Your task to perform on an android device: toggle translation in the chrome app Image 0: 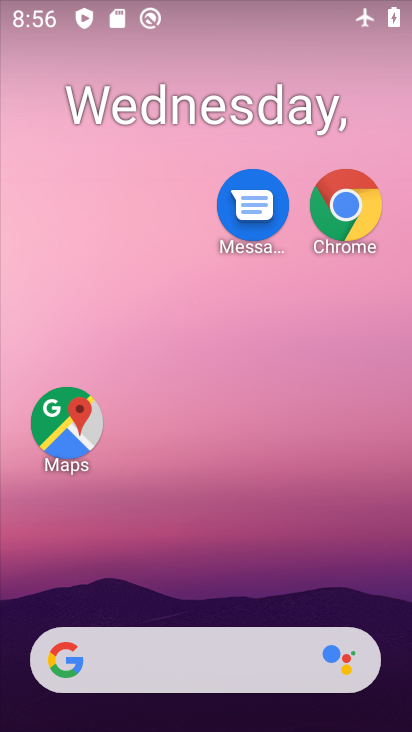
Step 0: drag from (232, 606) to (228, 148)
Your task to perform on an android device: toggle translation in the chrome app Image 1: 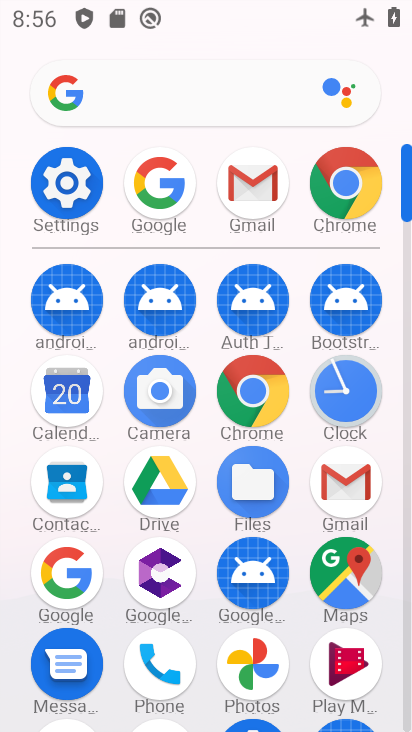
Step 1: click (251, 375)
Your task to perform on an android device: toggle translation in the chrome app Image 2: 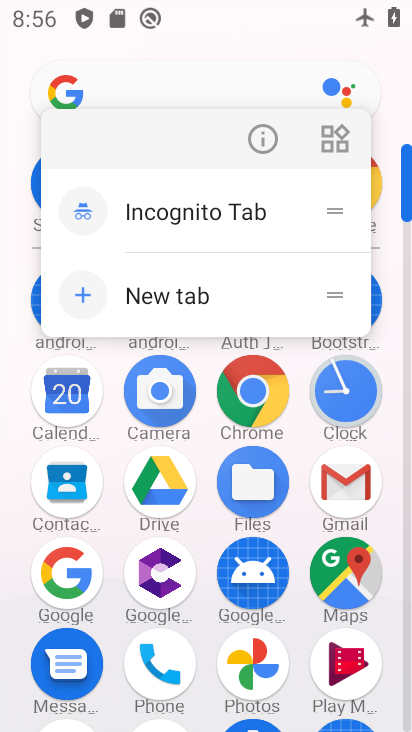
Step 2: click (256, 123)
Your task to perform on an android device: toggle translation in the chrome app Image 3: 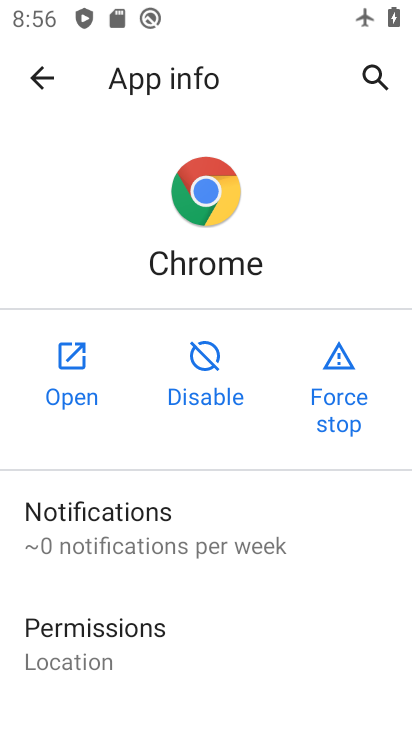
Step 3: click (74, 370)
Your task to perform on an android device: toggle translation in the chrome app Image 4: 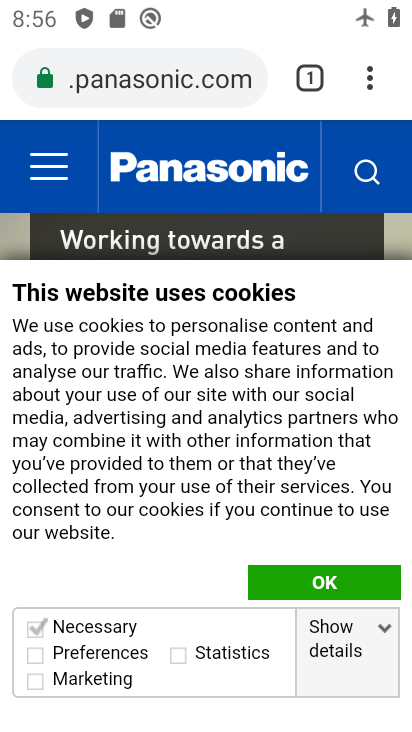
Step 4: drag from (176, 542) to (270, 240)
Your task to perform on an android device: toggle translation in the chrome app Image 5: 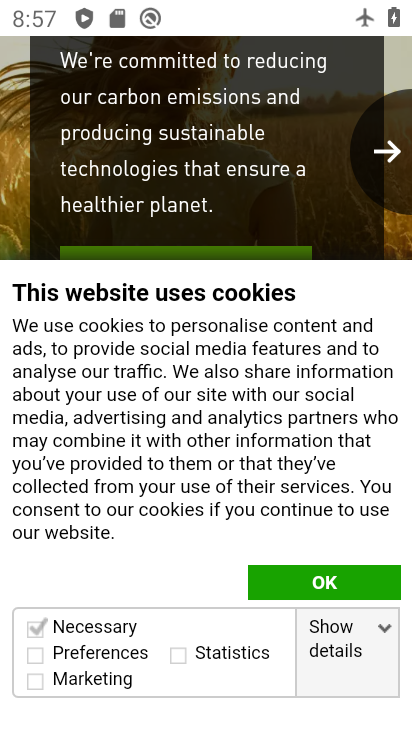
Step 5: drag from (256, 298) to (320, 681)
Your task to perform on an android device: toggle translation in the chrome app Image 6: 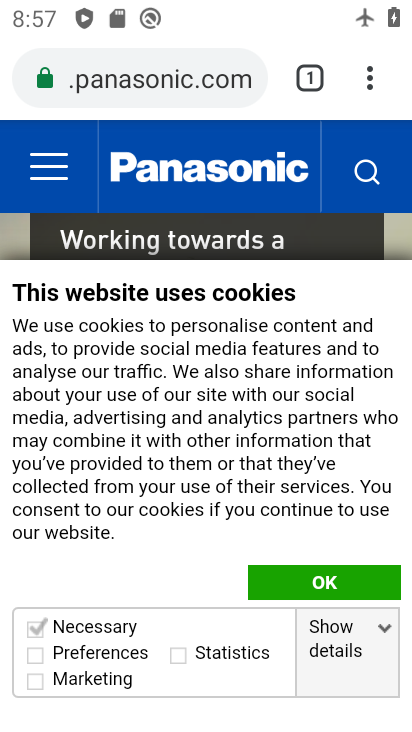
Step 6: drag from (379, 74) to (149, 605)
Your task to perform on an android device: toggle translation in the chrome app Image 7: 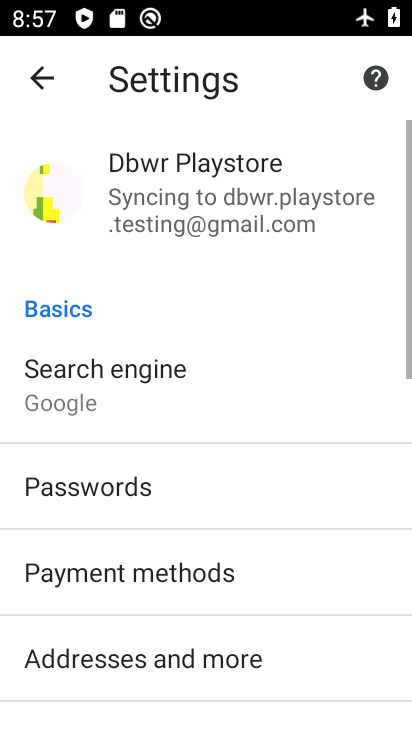
Step 7: drag from (230, 620) to (339, 5)
Your task to perform on an android device: toggle translation in the chrome app Image 8: 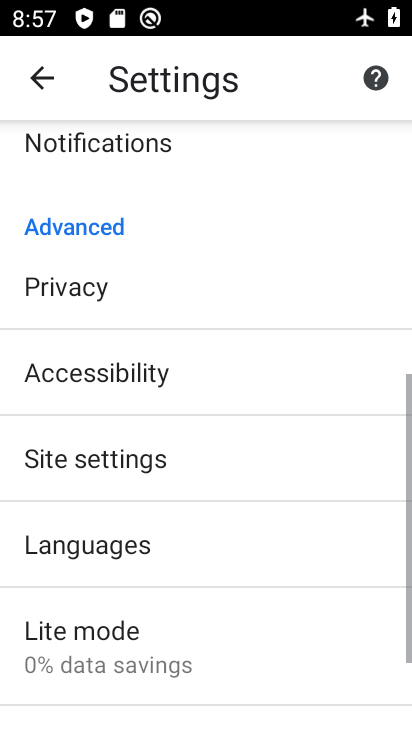
Step 8: drag from (240, 567) to (295, 139)
Your task to perform on an android device: toggle translation in the chrome app Image 9: 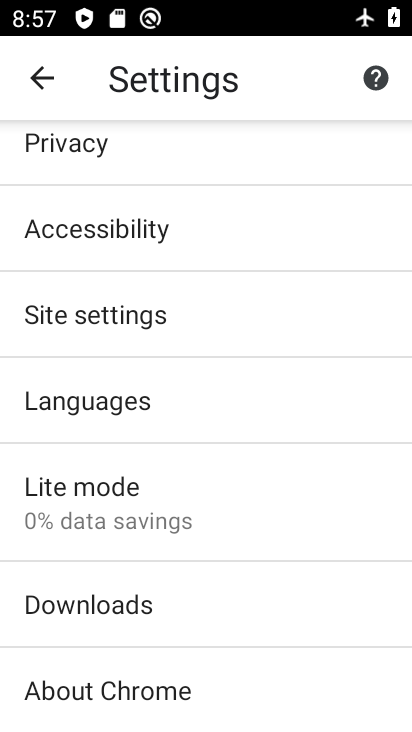
Step 9: click (170, 395)
Your task to perform on an android device: toggle translation in the chrome app Image 10: 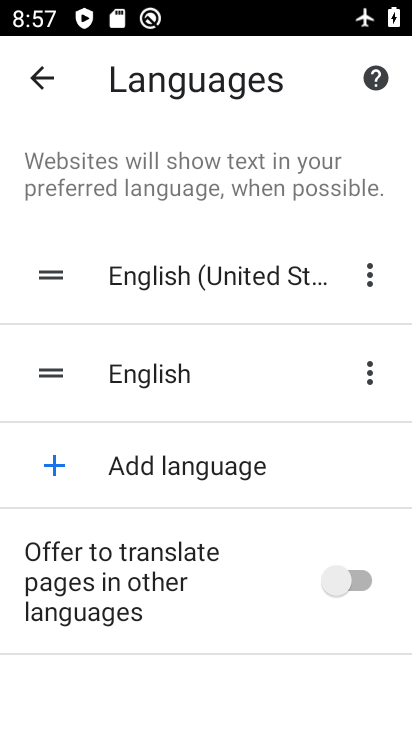
Step 10: click (274, 568)
Your task to perform on an android device: toggle translation in the chrome app Image 11: 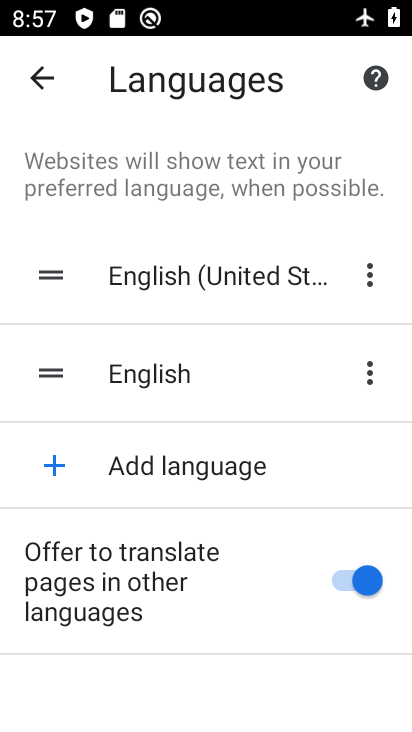
Step 11: task complete